Your task to perform on an android device: change alarm snooze length Image 0: 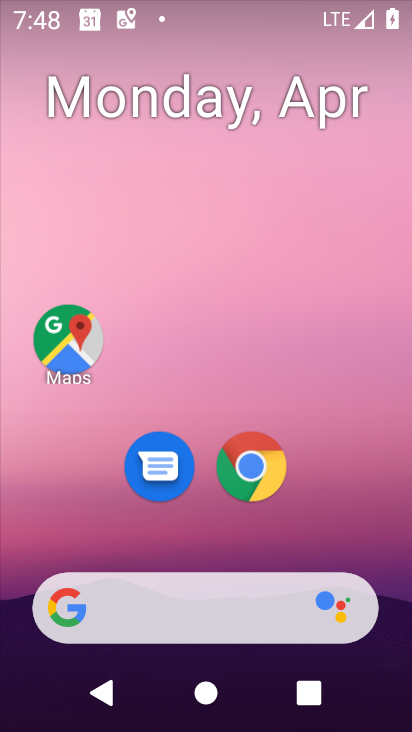
Step 0: drag from (206, 249) to (206, 105)
Your task to perform on an android device: change alarm snooze length Image 1: 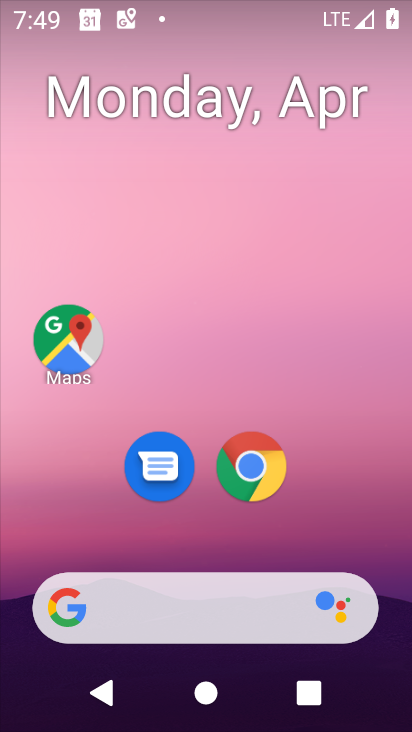
Step 1: drag from (223, 537) to (225, 190)
Your task to perform on an android device: change alarm snooze length Image 2: 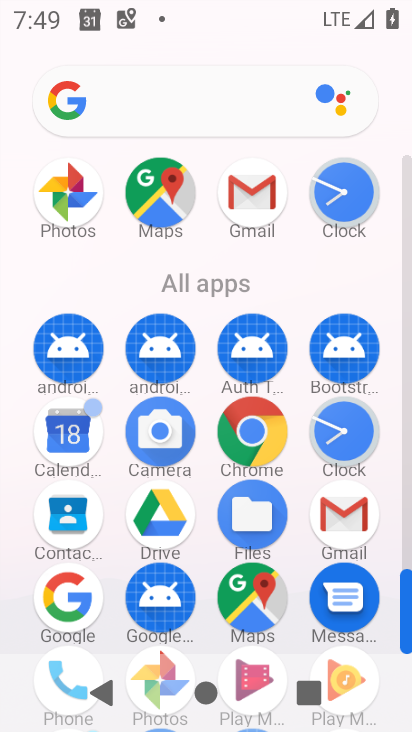
Step 2: click (366, 432)
Your task to perform on an android device: change alarm snooze length Image 3: 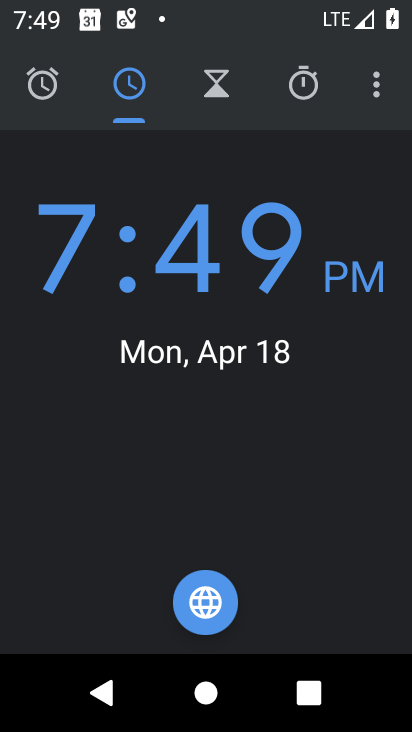
Step 3: click (357, 86)
Your task to perform on an android device: change alarm snooze length Image 4: 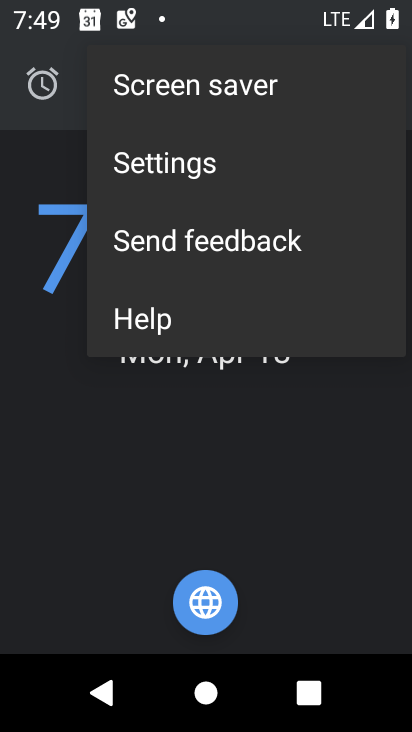
Step 4: click (246, 169)
Your task to perform on an android device: change alarm snooze length Image 5: 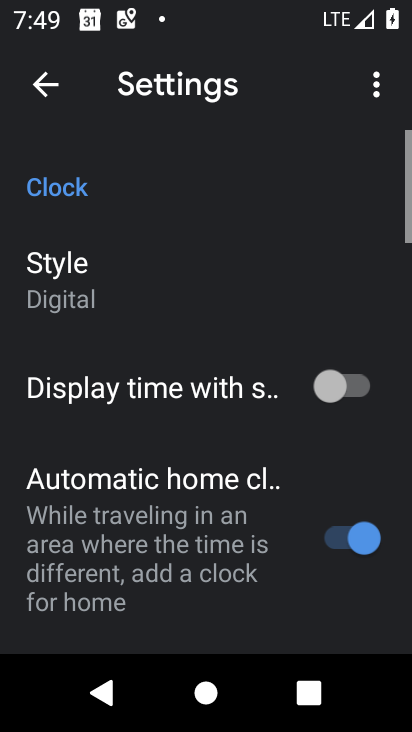
Step 5: drag from (200, 532) to (219, 145)
Your task to perform on an android device: change alarm snooze length Image 6: 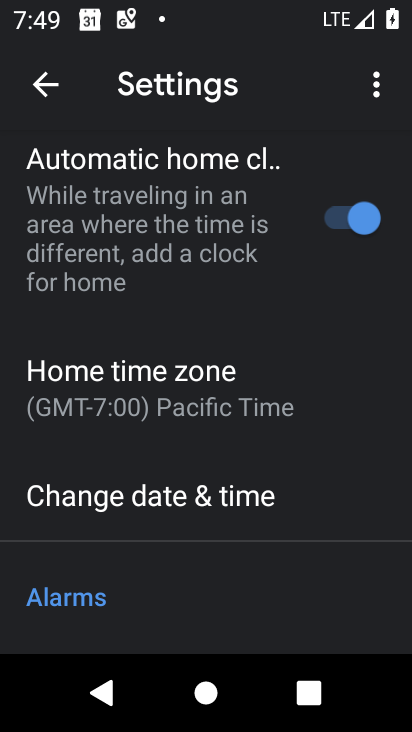
Step 6: drag from (226, 346) to (272, 120)
Your task to perform on an android device: change alarm snooze length Image 7: 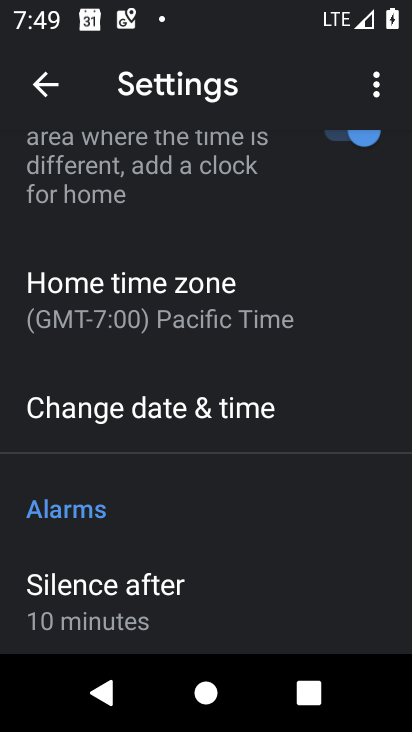
Step 7: drag from (228, 486) to (288, 188)
Your task to perform on an android device: change alarm snooze length Image 8: 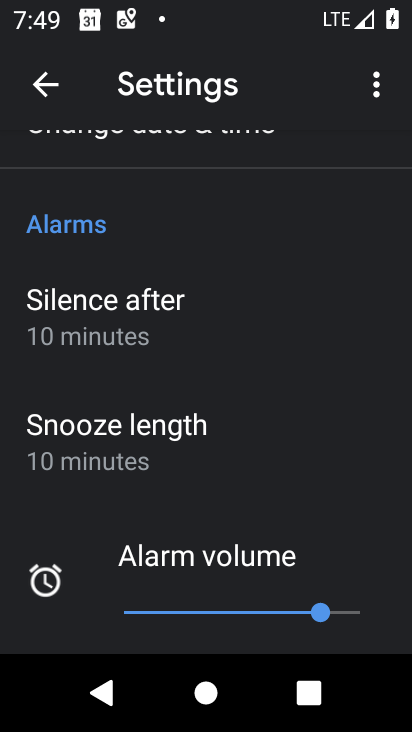
Step 8: click (133, 464)
Your task to perform on an android device: change alarm snooze length Image 9: 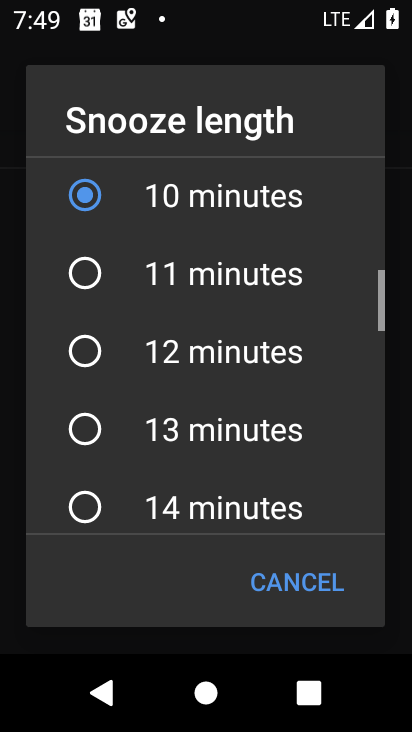
Step 9: click (134, 437)
Your task to perform on an android device: change alarm snooze length Image 10: 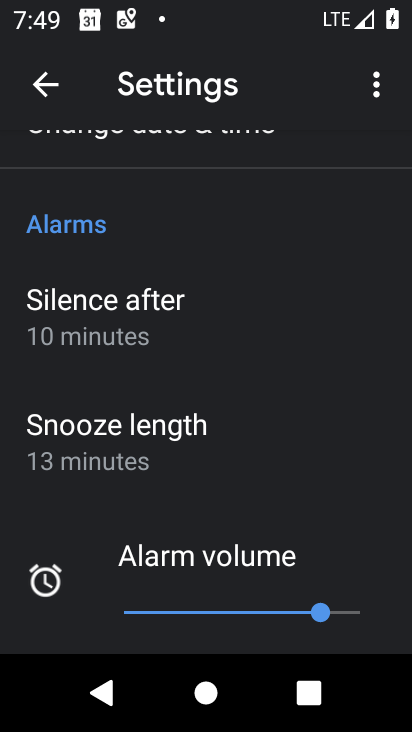
Step 10: task complete